Your task to perform on an android device: change alarm snooze length Image 0: 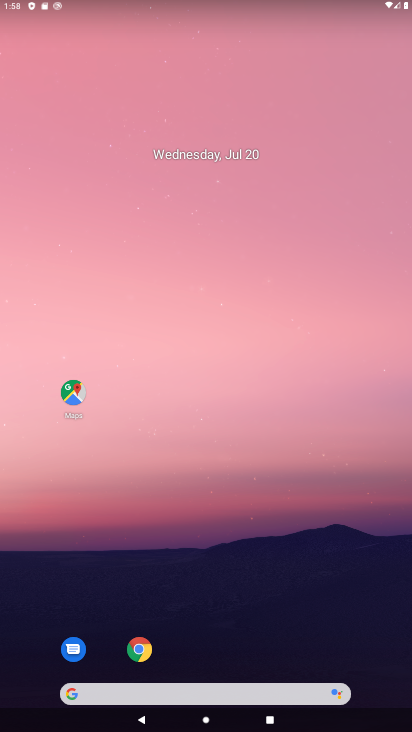
Step 0: drag from (247, 501) to (289, 187)
Your task to perform on an android device: change alarm snooze length Image 1: 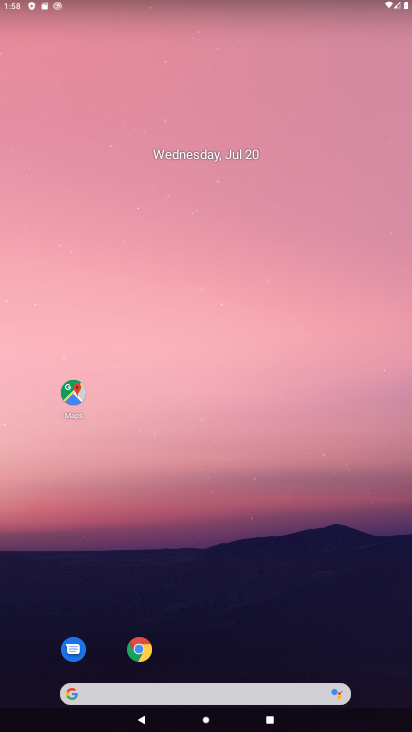
Step 1: drag from (255, 507) to (264, 80)
Your task to perform on an android device: change alarm snooze length Image 2: 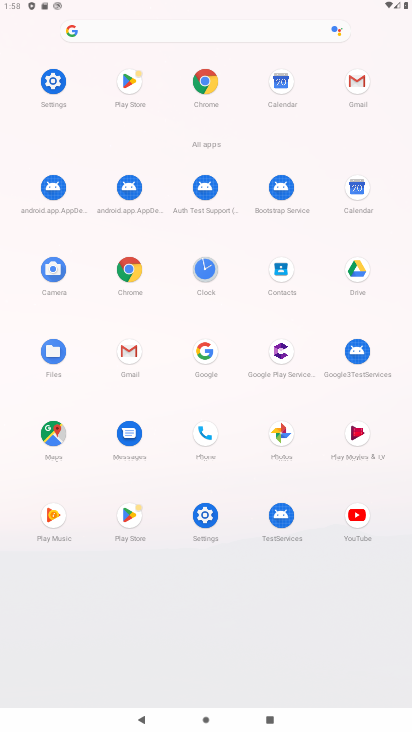
Step 2: click (214, 273)
Your task to perform on an android device: change alarm snooze length Image 3: 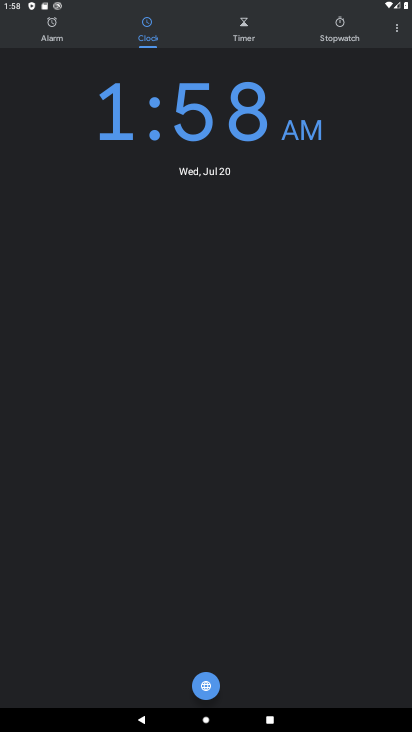
Step 3: click (397, 27)
Your task to perform on an android device: change alarm snooze length Image 4: 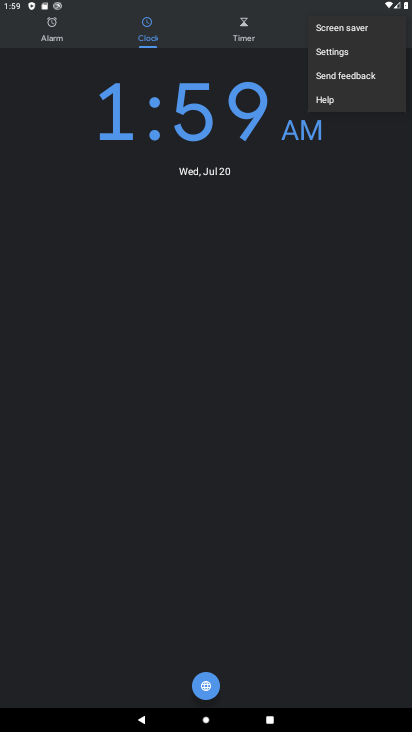
Step 4: click (341, 55)
Your task to perform on an android device: change alarm snooze length Image 5: 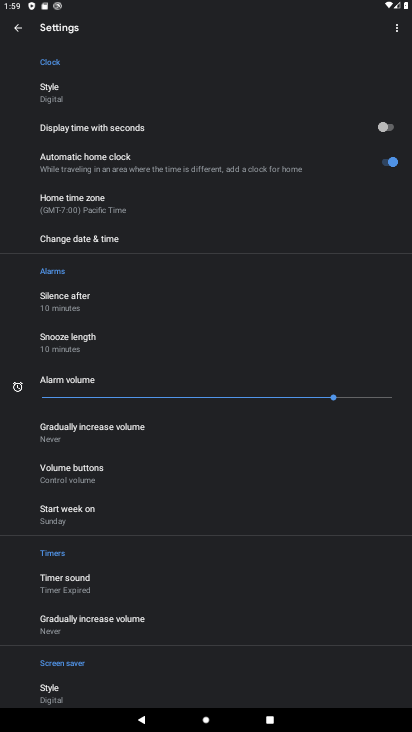
Step 5: click (90, 340)
Your task to perform on an android device: change alarm snooze length Image 6: 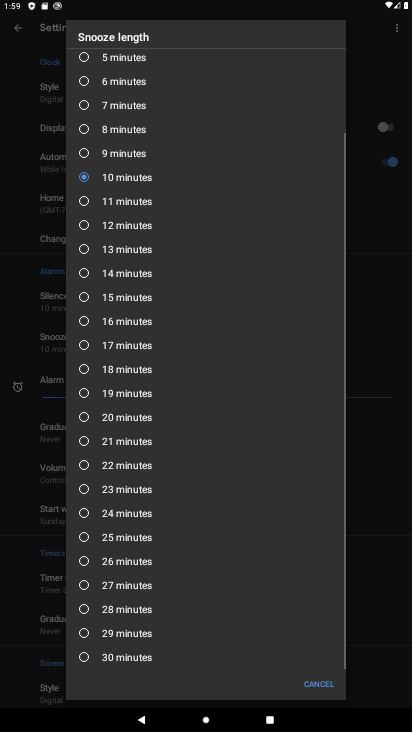
Step 6: click (114, 339)
Your task to perform on an android device: change alarm snooze length Image 7: 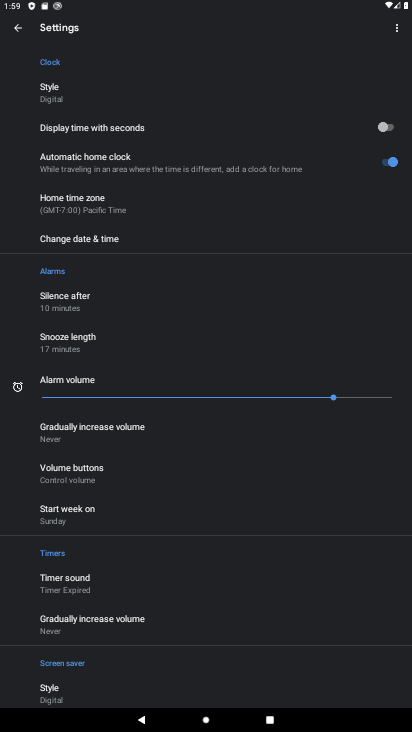
Step 7: task complete